Your task to perform on an android device: What is the news today? Image 0: 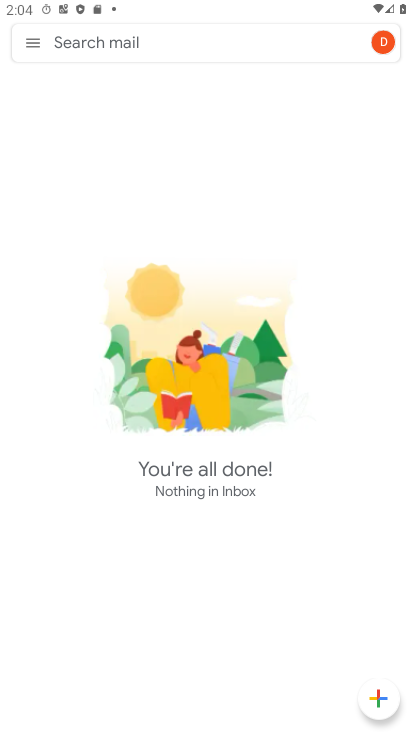
Step 0: press home button
Your task to perform on an android device: What is the news today? Image 1: 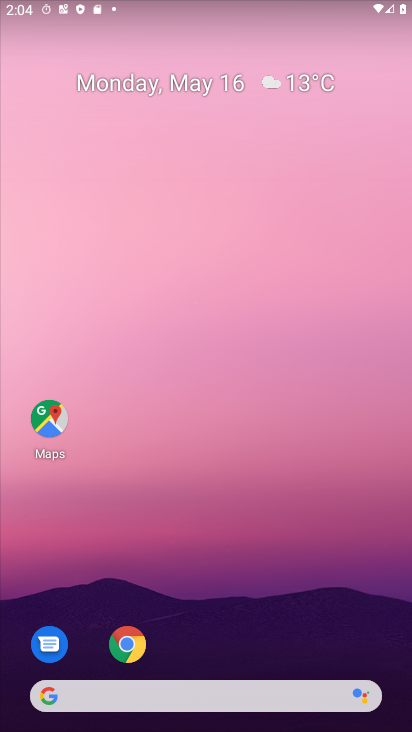
Step 1: drag from (229, 632) to (235, 150)
Your task to perform on an android device: What is the news today? Image 2: 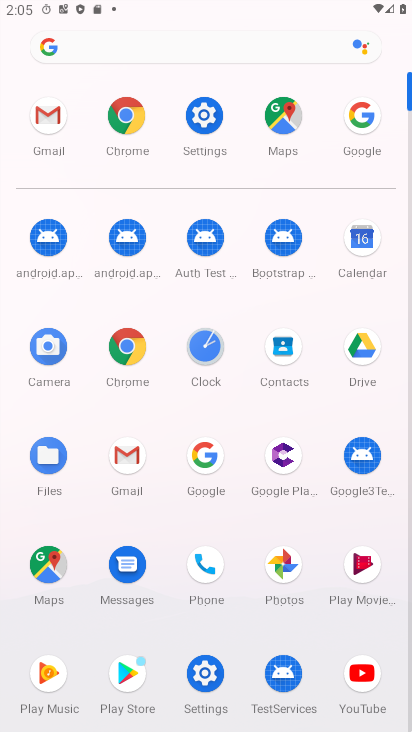
Step 2: drag from (201, 482) to (226, 240)
Your task to perform on an android device: What is the news today? Image 3: 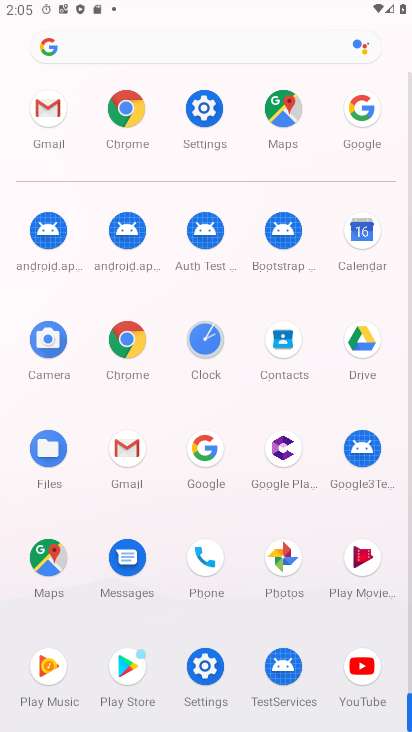
Step 3: click (201, 452)
Your task to perform on an android device: What is the news today? Image 4: 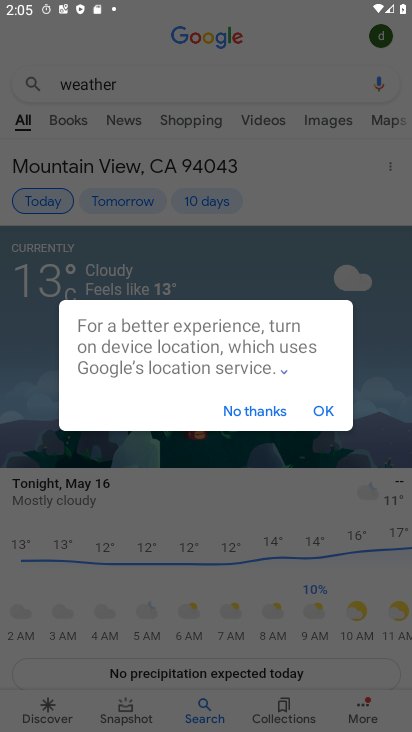
Step 4: click (308, 410)
Your task to perform on an android device: What is the news today? Image 5: 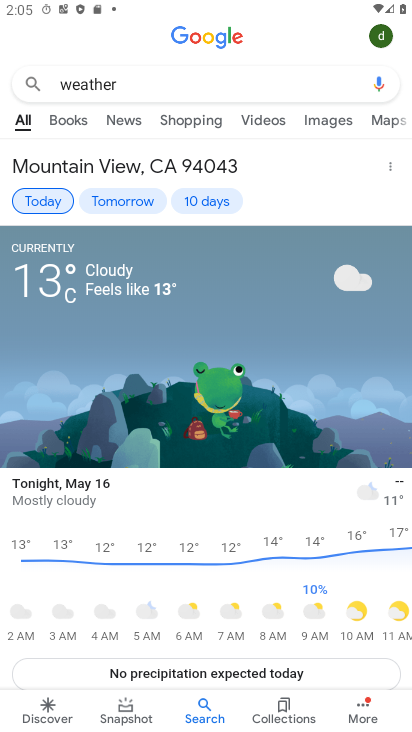
Step 5: click (193, 86)
Your task to perform on an android device: What is the news today? Image 6: 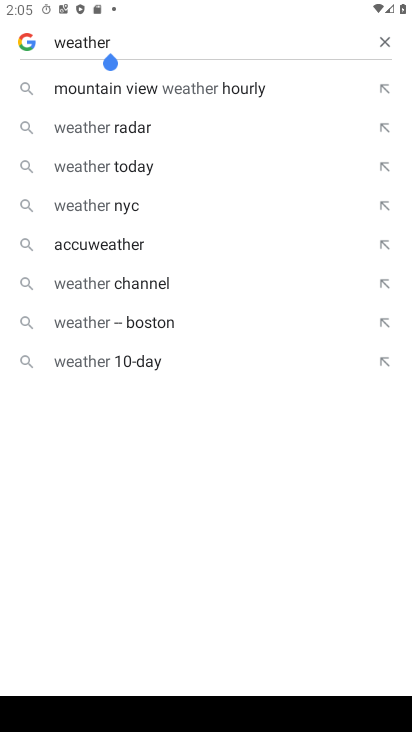
Step 6: click (385, 41)
Your task to perform on an android device: What is the news today? Image 7: 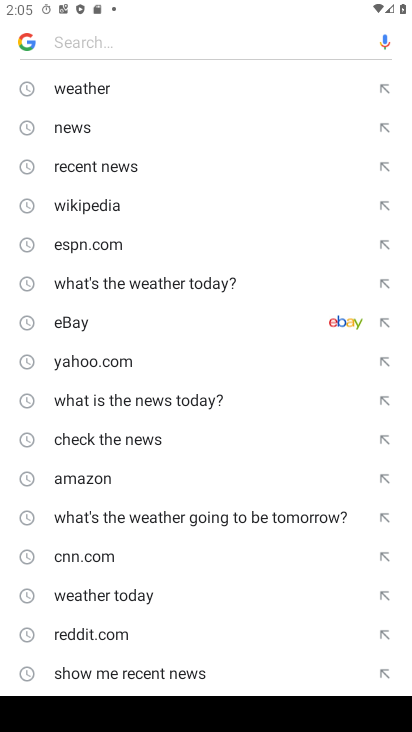
Step 7: click (86, 136)
Your task to perform on an android device: What is the news today? Image 8: 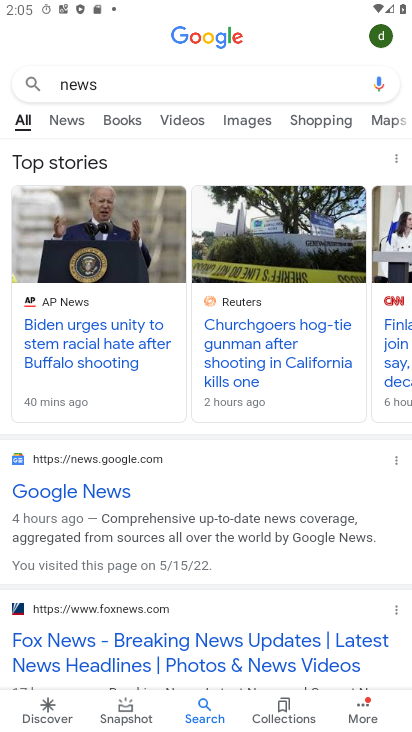
Step 8: click (73, 120)
Your task to perform on an android device: What is the news today? Image 9: 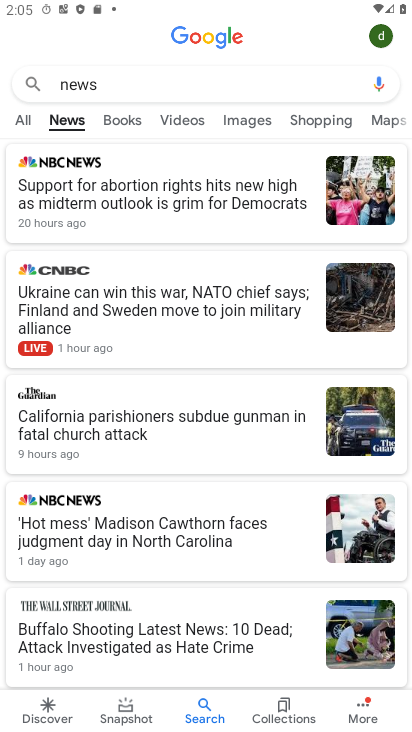
Step 9: task complete